Your task to perform on an android device: show emergency info Image 0: 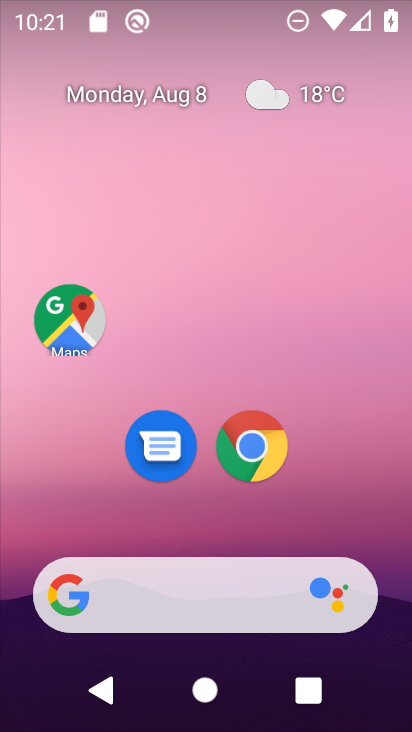
Step 0: drag from (398, 631) to (378, 154)
Your task to perform on an android device: show emergency info Image 1: 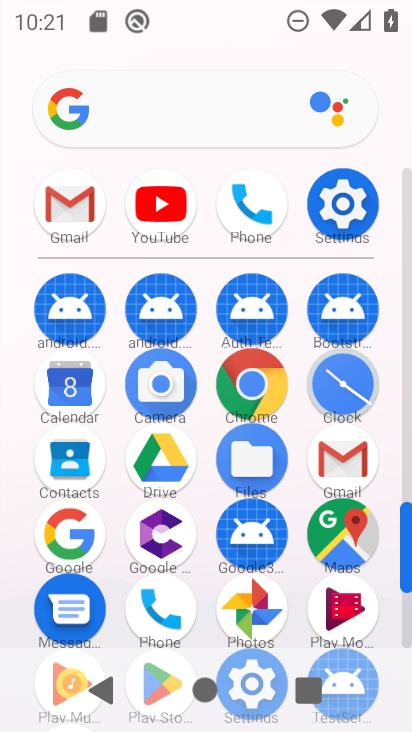
Step 1: click (343, 208)
Your task to perform on an android device: show emergency info Image 2: 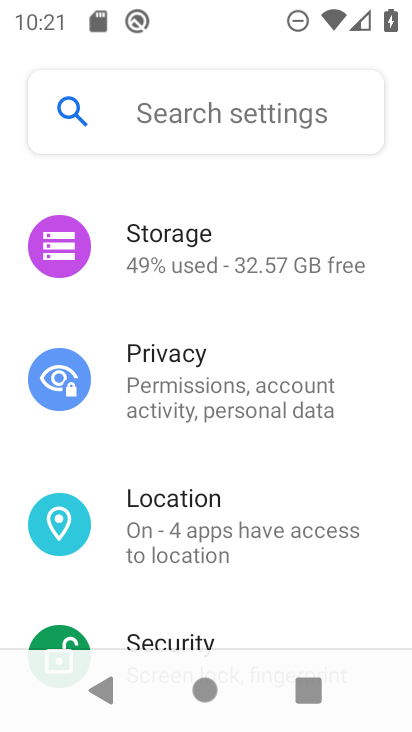
Step 2: drag from (299, 544) to (270, 144)
Your task to perform on an android device: show emergency info Image 3: 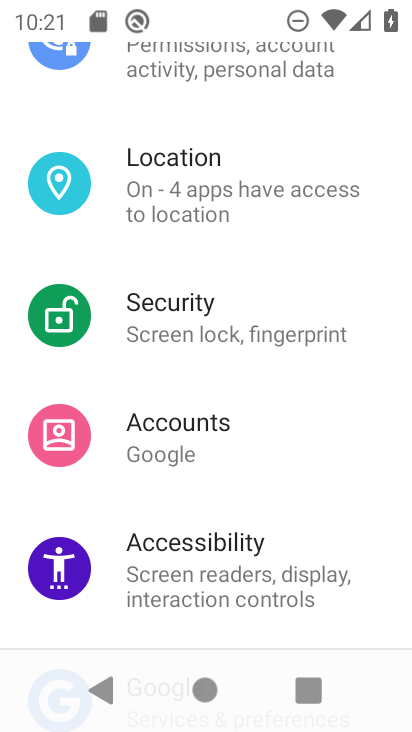
Step 3: drag from (324, 594) to (285, 153)
Your task to perform on an android device: show emergency info Image 4: 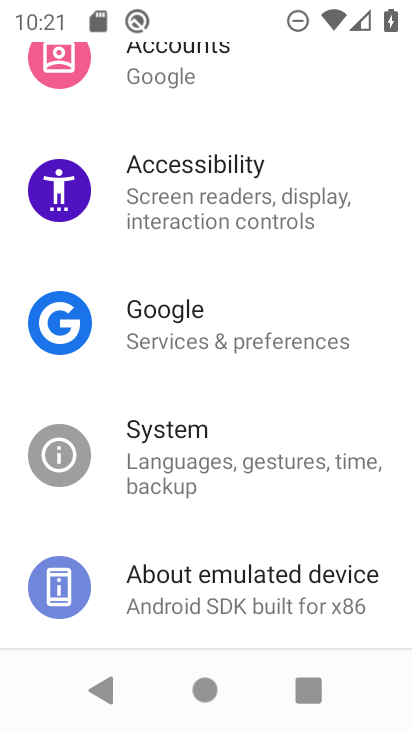
Step 4: click (237, 600)
Your task to perform on an android device: show emergency info Image 5: 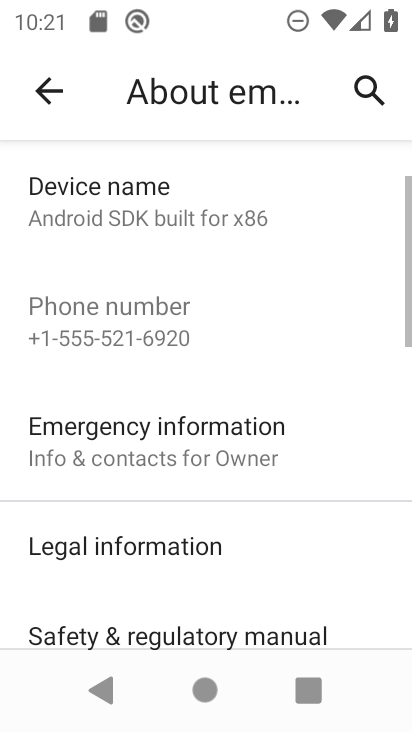
Step 5: click (185, 437)
Your task to perform on an android device: show emergency info Image 6: 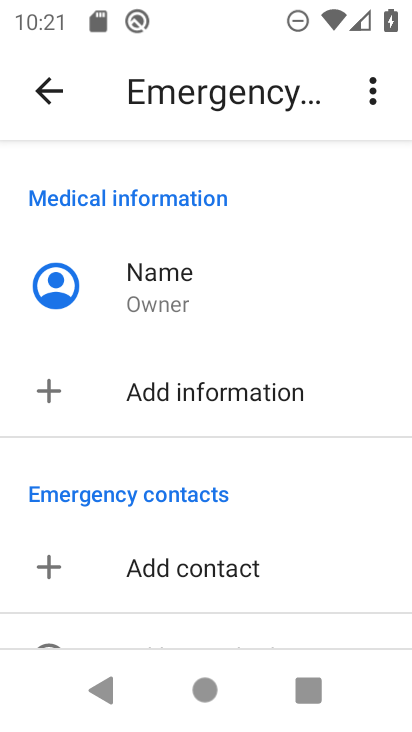
Step 6: task complete